Your task to perform on an android device: turn on sleep mode Image 0: 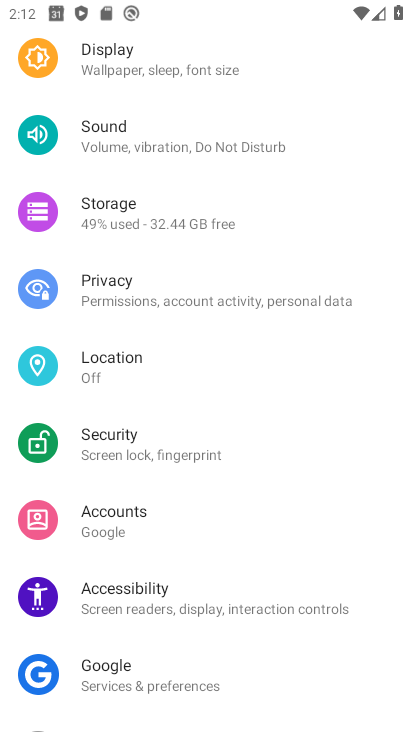
Step 0: press back button
Your task to perform on an android device: turn on sleep mode Image 1: 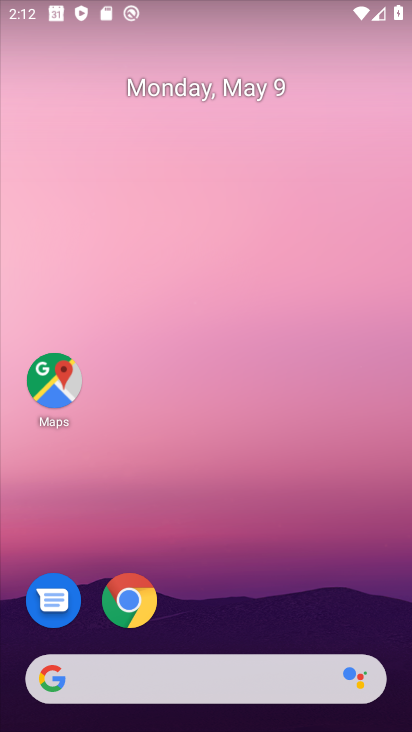
Step 1: drag from (270, 537) to (189, 0)
Your task to perform on an android device: turn on sleep mode Image 2: 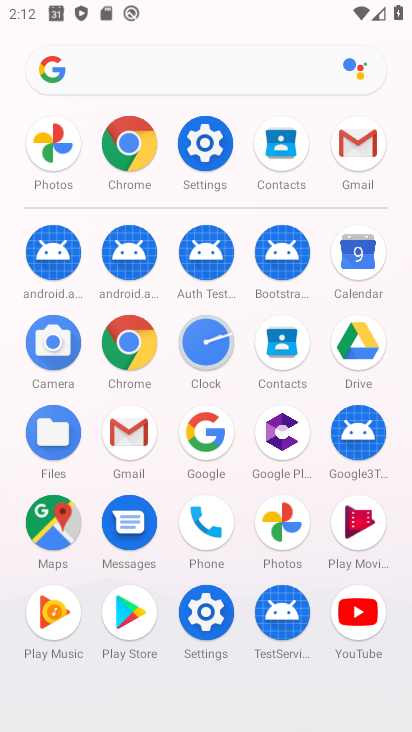
Step 2: click (201, 604)
Your task to perform on an android device: turn on sleep mode Image 3: 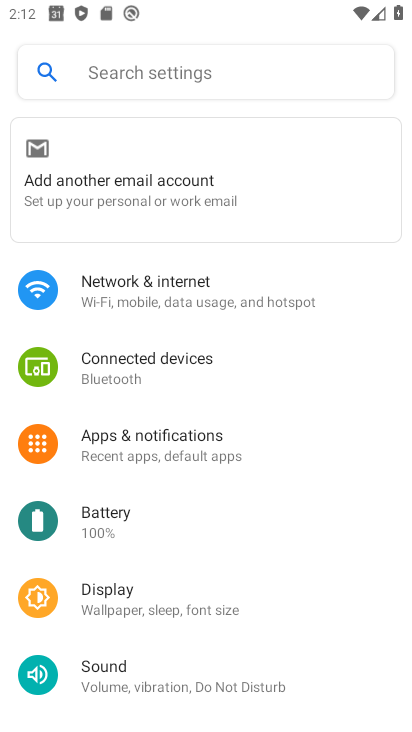
Step 3: drag from (317, 572) to (314, 449)
Your task to perform on an android device: turn on sleep mode Image 4: 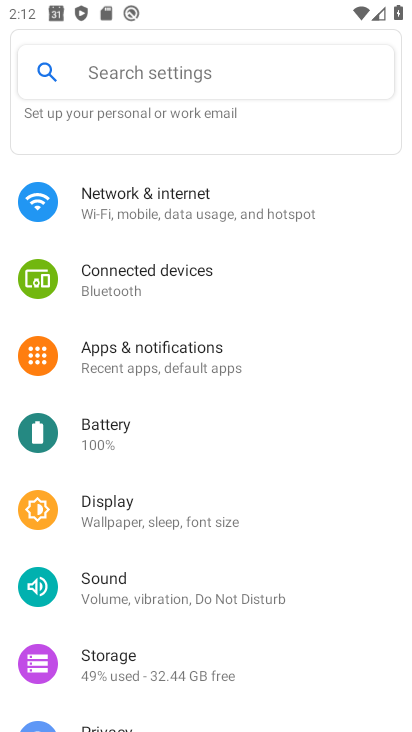
Step 4: drag from (275, 517) to (268, 203)
Your task to perform on an android device: turn on sleep mode Image 5: 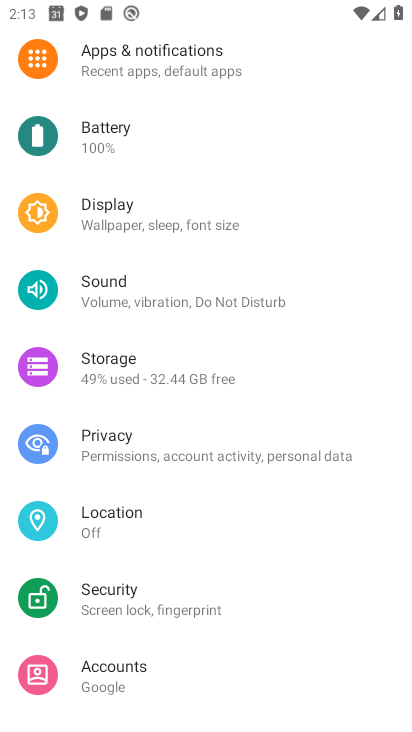
Step 5: click (181, 217)
Your task to perform on an android device: turn on sleep mode Image 6: 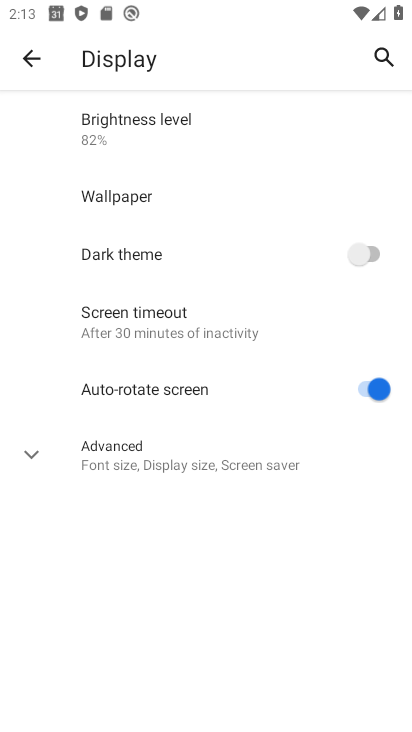
Step 6: click (24, 455)
Your task to perform on an android device: turn on sleep mode Image 7: 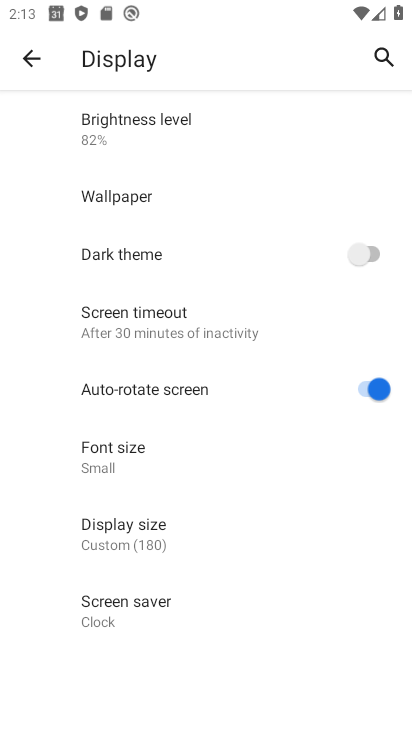
Step 7: task complete